Your task to perform on an android device: turn on airplane mode Image 0: 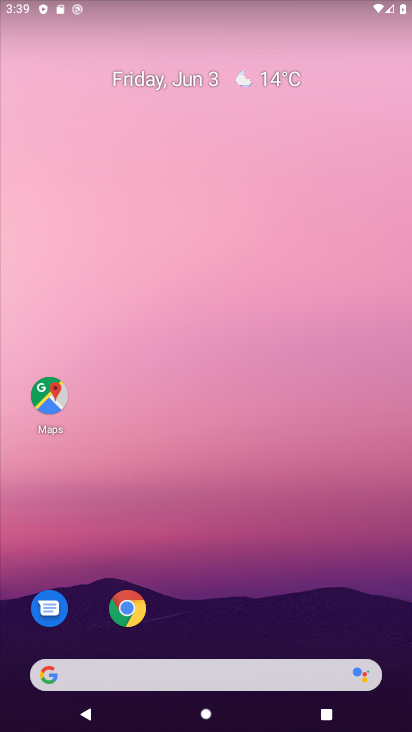
Step 0: drag from (181, 657) to (206, 169)
Your task to perform on an android device: turn on airplane mode Image 1: 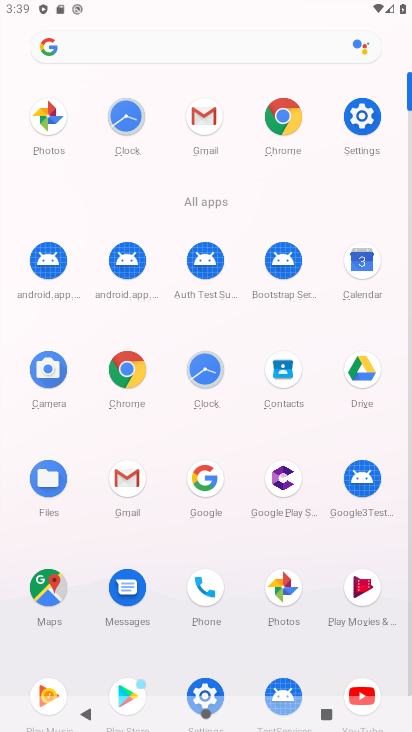
Step 1: click (359, 115)
Your task to perform on an android device: turn on airplane mode Image 2: 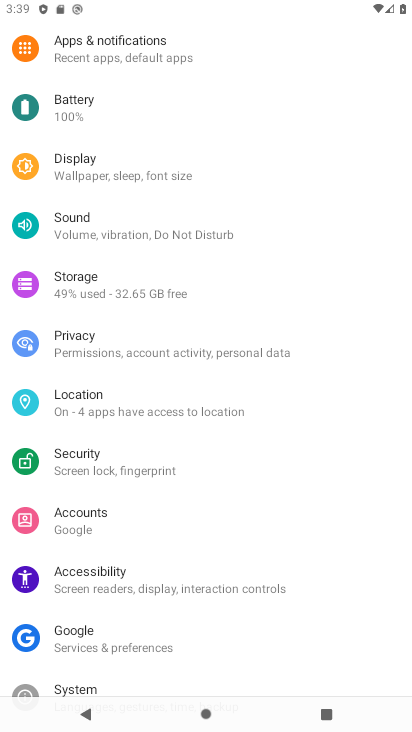
Step 2: drag from (147, 52) to (179, 424)
Your task to perform on an android device: turn on airplane mode Image 3: 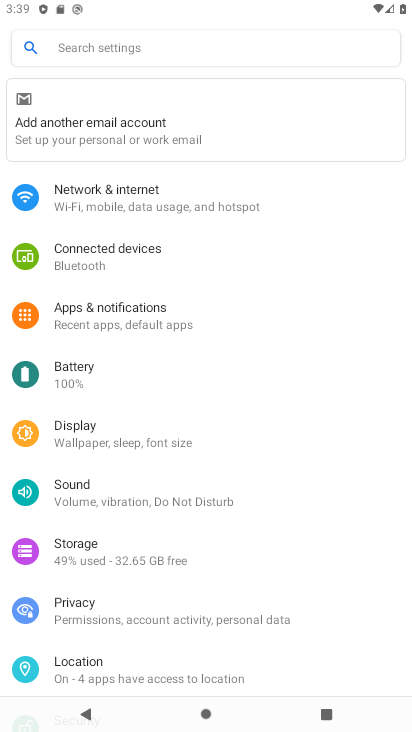
Step 3: click (114, 192)
Your task to perform on an android device: turn on airplane mode Image 4: 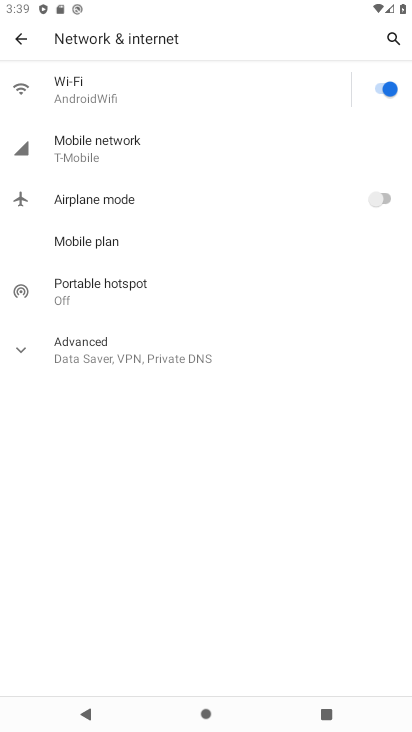
Step 4: click (387, 197)
Your task to perform on an android device: turn on airplane mode Image 5: 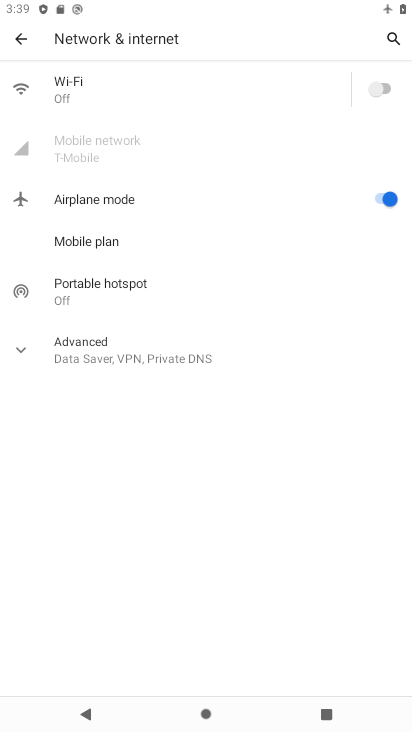
Step 5: task complete